Your task to perform on an android device: toggle translation in the chrome app Image 0: 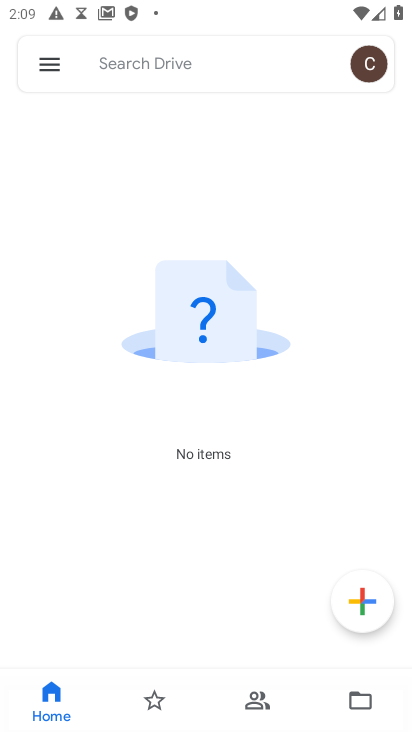
Step 0: press back button
Your task to perform on an android device: toggle translation in the chrome app Image 1: 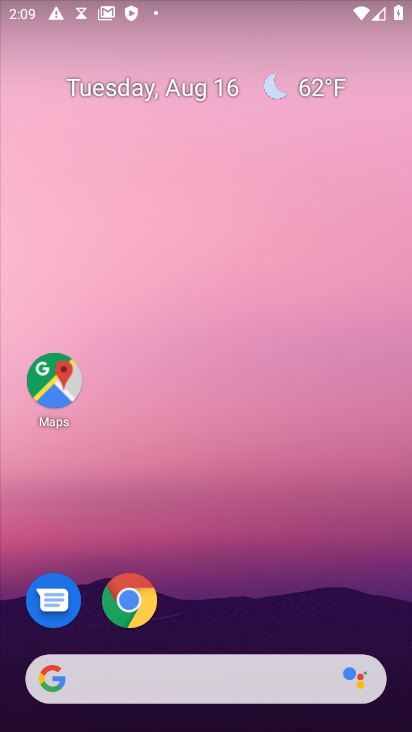
Step 1: click (142, 621)
Your task to perform on an android device: toggle translation in the chrome app Image 2: 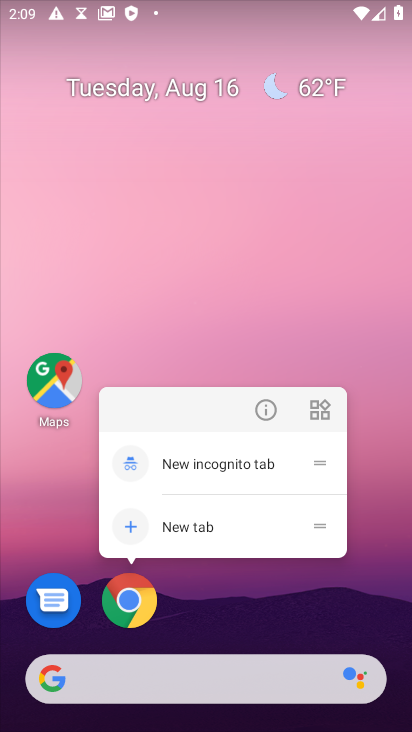
Step 2: click (142, 621)
Your task to perform on an android device: toggle translation in the chrome app Image 3: 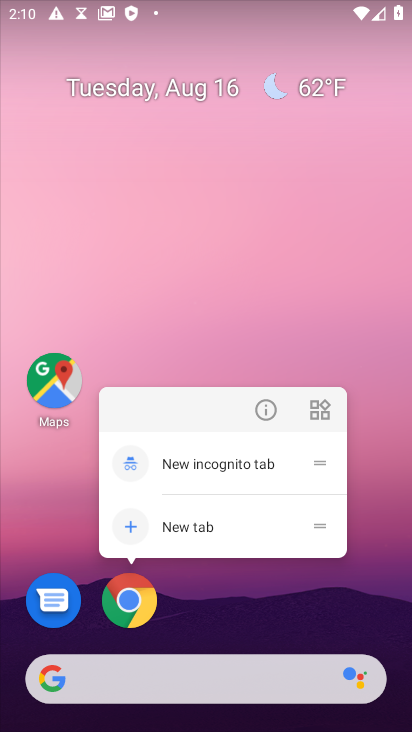
Step 3: click (142, 621)
Your task to perform on an android device: toggle translation in the chrome app Image 4: 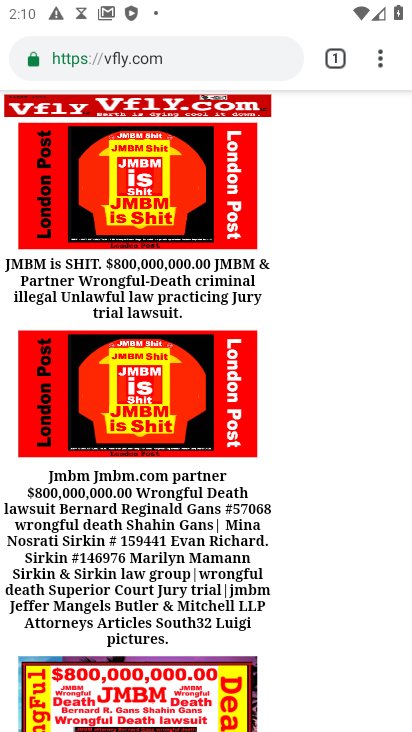
Step 4: drag from (381, 59) to (211, 626)
Your task to perform on an android device: toggle translation in the chrome app Image 5: 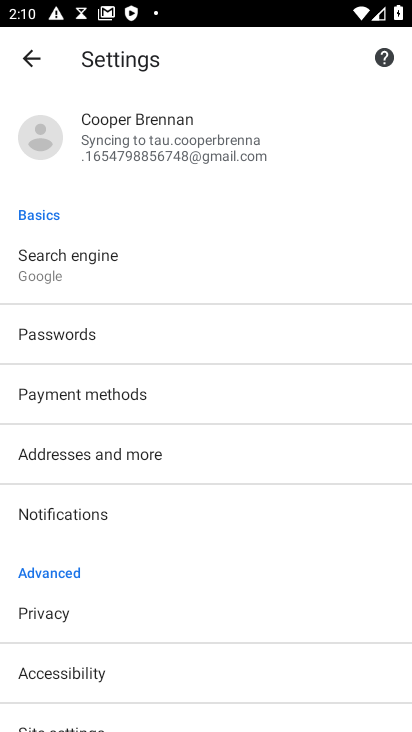
Step 5: drag from (252, 618) to (239, 187)
Your task to perform on an android device: toggle translation in the chrome app Image 6: 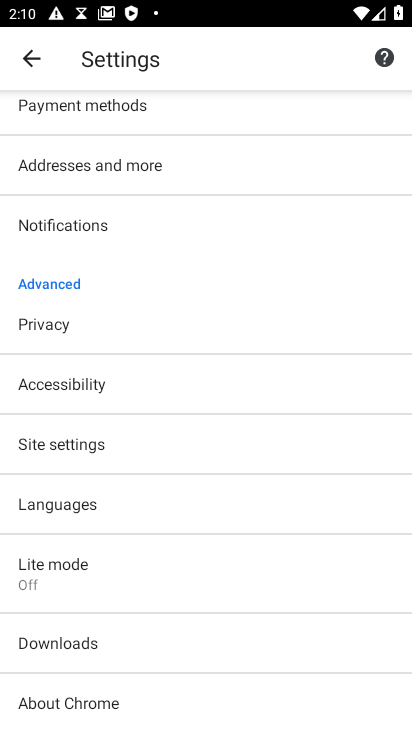
Step 6: click (76, 507)
Your task to perform on an android device: toggle translation in the chrome app Image 7: 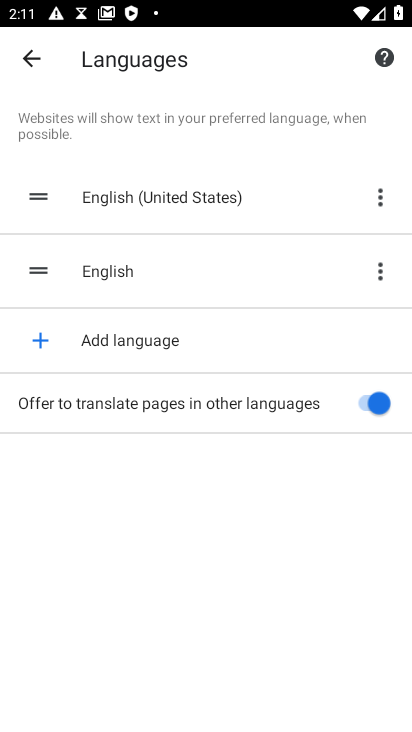
Step 7: click (364, 401)
Your task to perform on an android device: toggle translation in the chrome app Image 8: 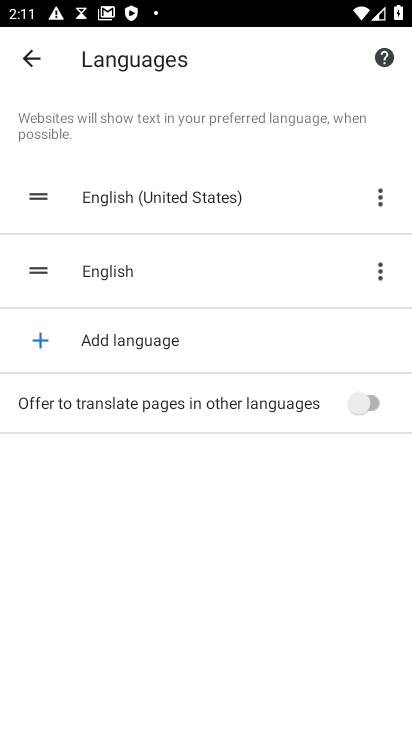
Step 8: task complete